Your task to perform on an android device: Is it going to rain tomorrow? Image 0: 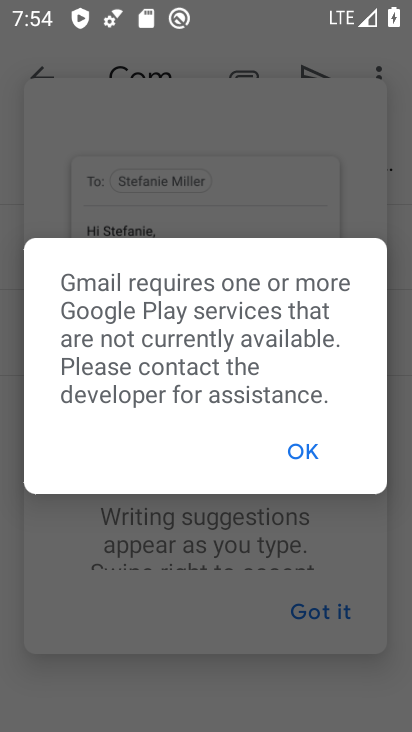
Step 0: press home button
Your task to perform on an android device: Is it going to rain tomorrow? Image 1: 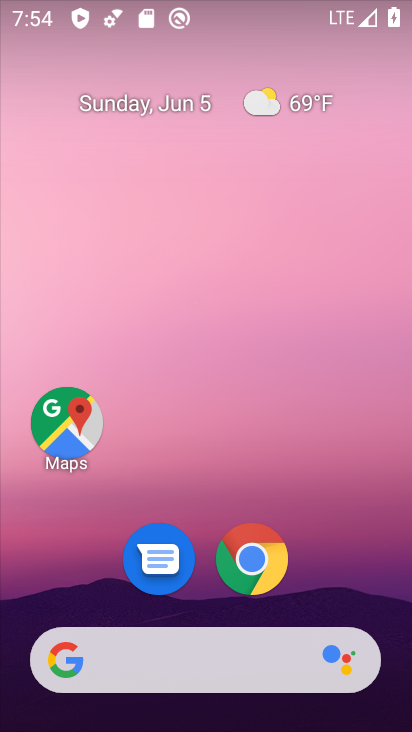
Step 1: click (320, 102)
Your task to perform on an android device: Is it going to rain tomorrow? Image 2: 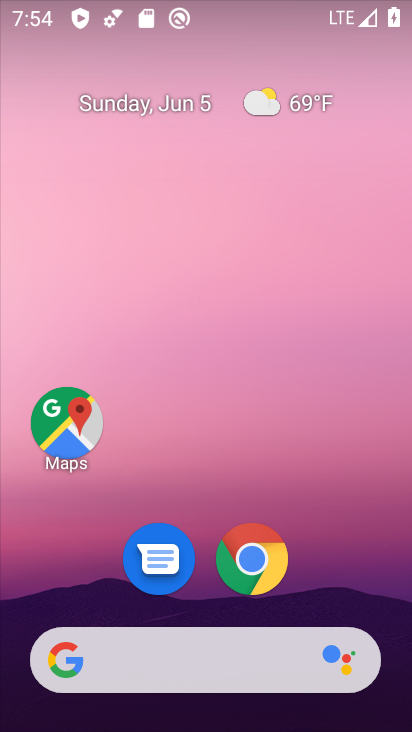
Step 2: click (317, 108)
Your task to perform on an android device: Is it going to rain tomorrow? Image 3: 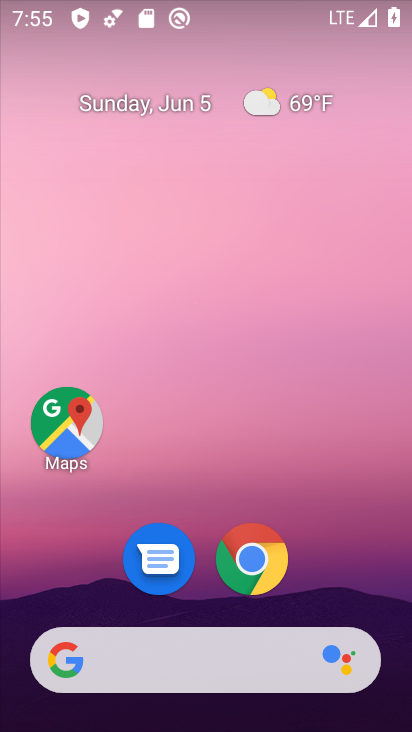
Step 3: click (317, 107)
Your task to perform on an android device: Is it going to rain tomorrow? Image 4: 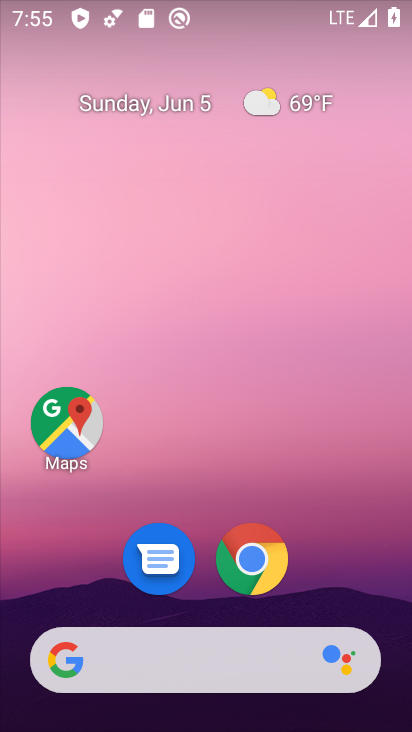
Step 4: click (315, 96)
Your task to perform on an android device: Is it going to rain tomorrow? Image 5: 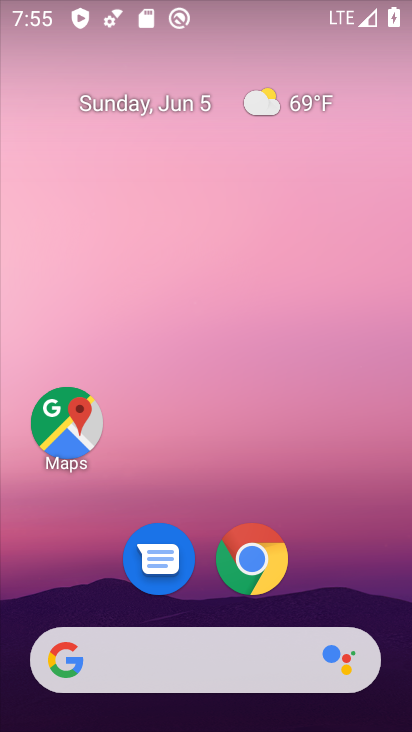
Step 5: click (307, 294)
Your task to perform on an android device: Is it going to rain tomorrow? Image 6: 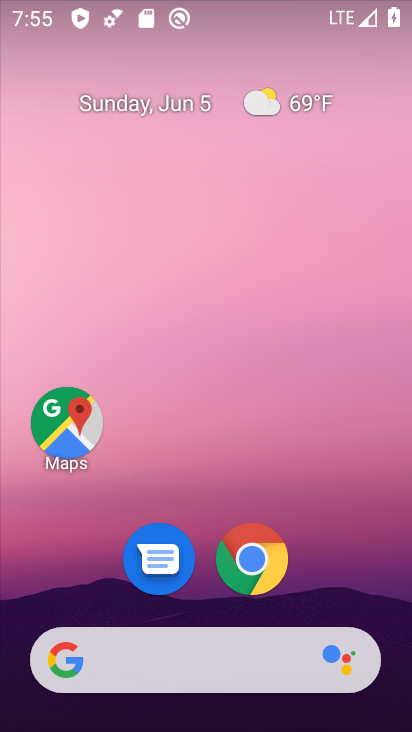
Step 6: click (320, 106)
Your task to perform on an android device: Is it going to rain tomorrow? Image 7: 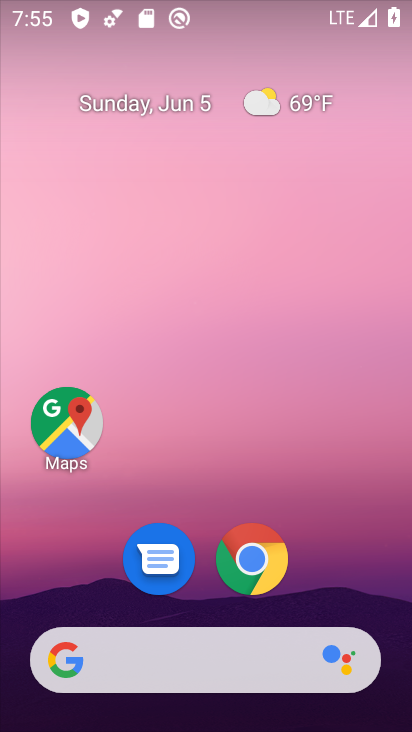
Step 7: press home button
Your task to perform on an android device: Is it going to rain tomorrow? Image 8: 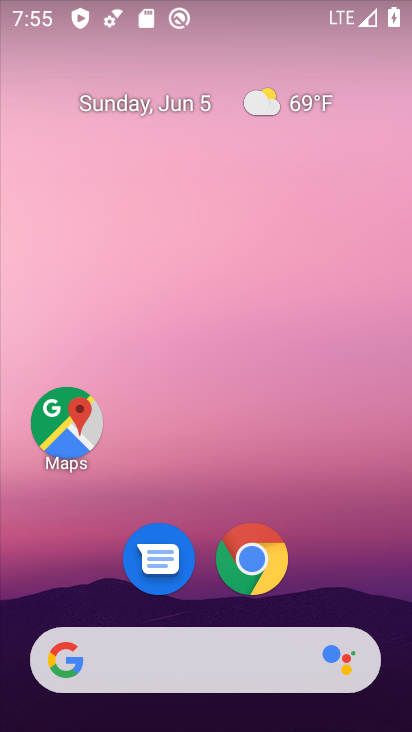
Step 8: click (353, 324)
Your task to perform on an android device: Is it going to rain tomorrow? Image 9: 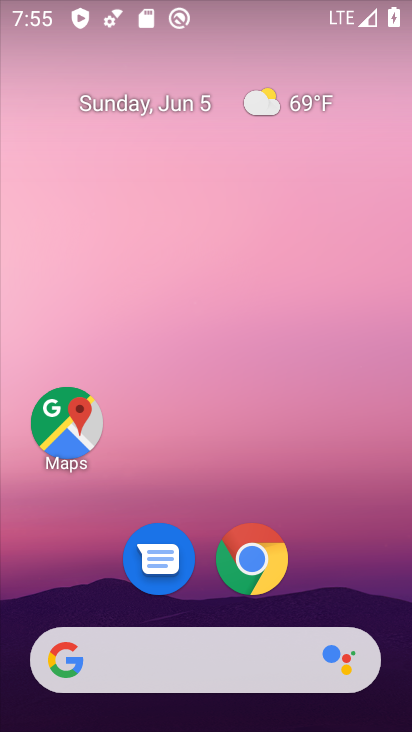
Step 9: click (307, 103)
Your task to perform on an android device: Is it going to rain tomorrow? Image 10: 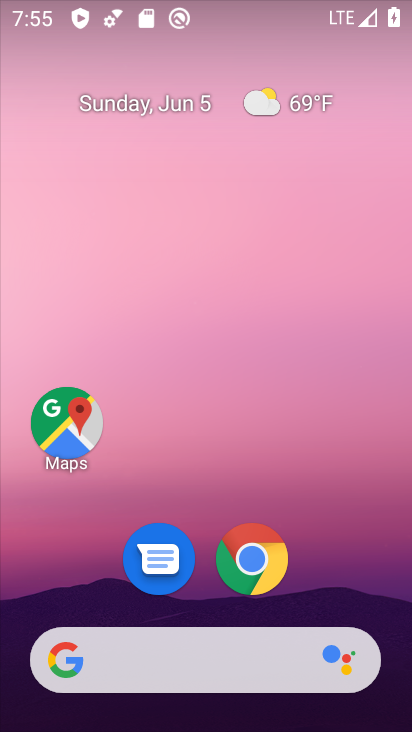
Step 10: click (307, 103)
Your task to perform on an android device: Is it going to rain tomorrow? Image 11: 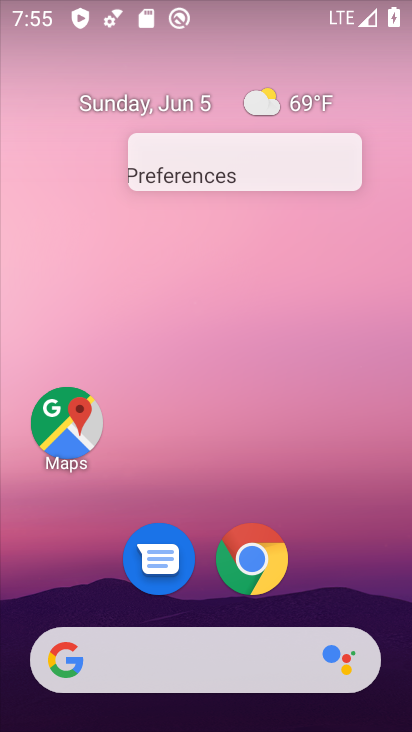
Step 11: click (307, 103)
Your task to perform on an android device: Is it going to rain tomorrow? Image 12: 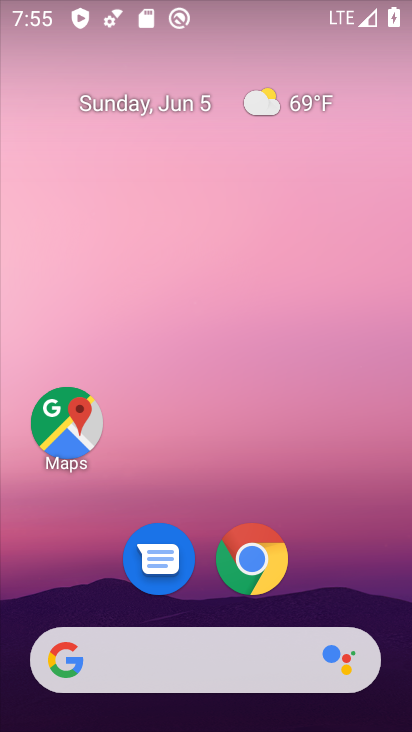
Step 12: click (298, 106)
Your task to perform on an android device: Is it going to rain tomorrow? Image 13: 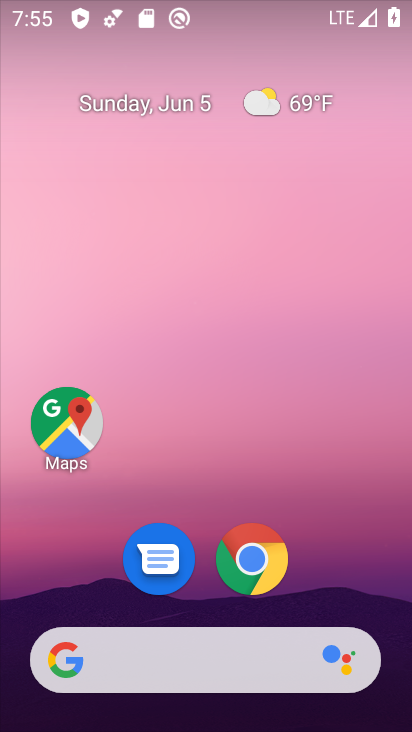
Step 13: click (257, 105)
Your task to perform on an android device: Is it going to rain tomorrow? Image 14: 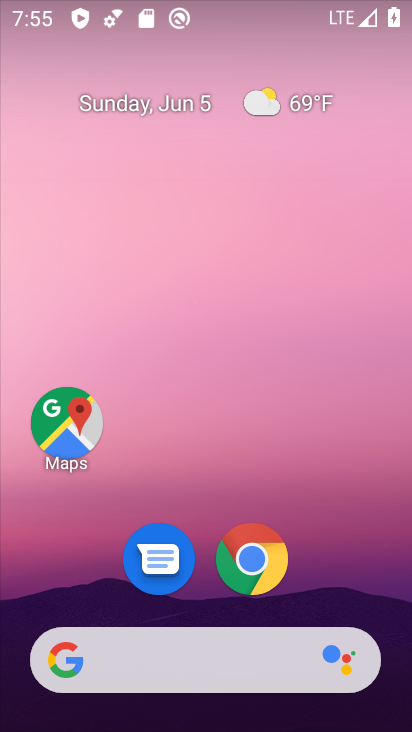
Step 14: click (291, 109)
Your task to perform on an android device: Is it going to rain tomorrow? Image 15: 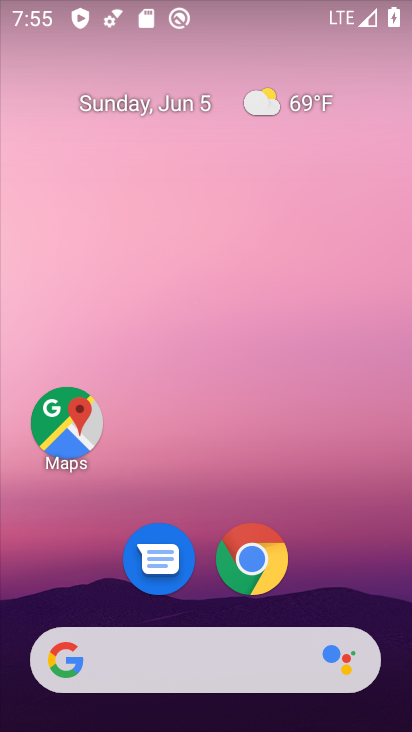
Step 15: click (307, 110)
Your task to perform on an android device: Is it going to rain tomorrow? Image 16: 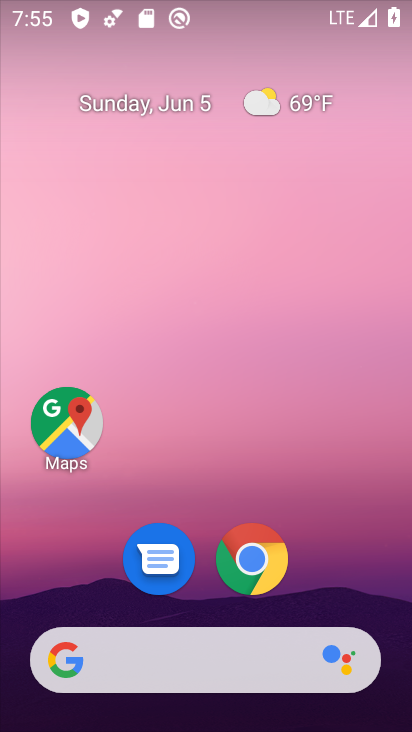
Step 16: drag from (372, 517) to (297, 77)
Your task to perform on an android device: Is it going to rain tomorrow? Image 17: 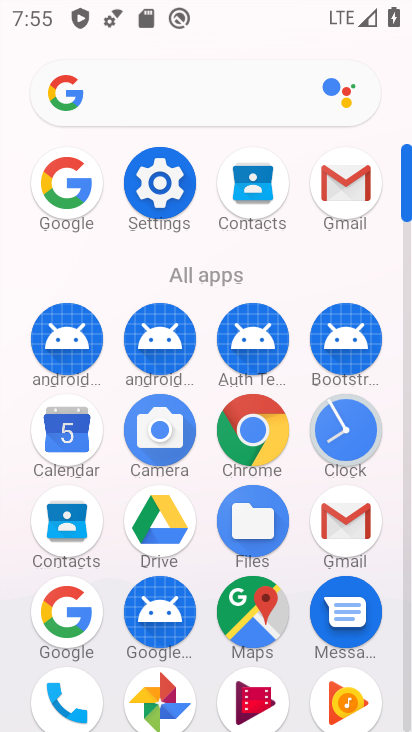
Step 17: click (68, 190)
Your task to perform on an android device: Is it going to rain tomorrow? Image 18: 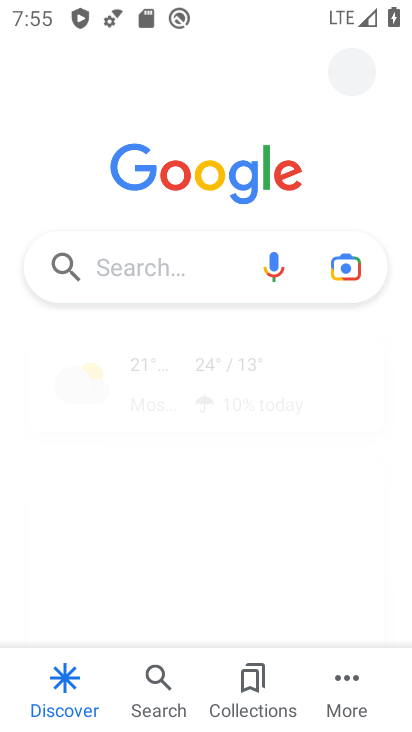
Step 18: click (173, 264)
Your task to perform on an android device: Is it going to rain tomorrow? Image 19: 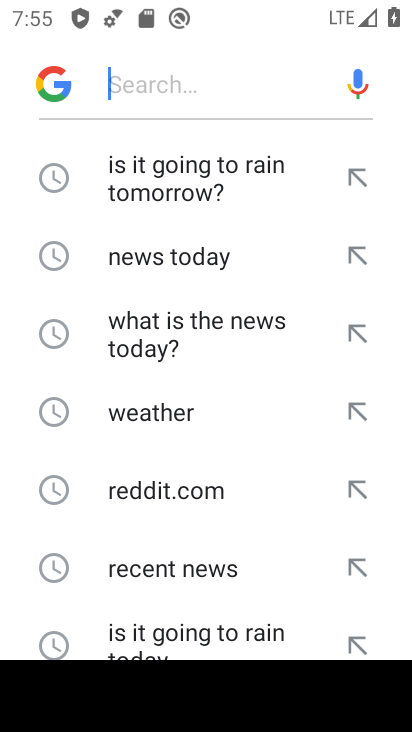
Step 19: press back button
Your task to perform on an android device: Is it going to rain tomorrow? Image 20: 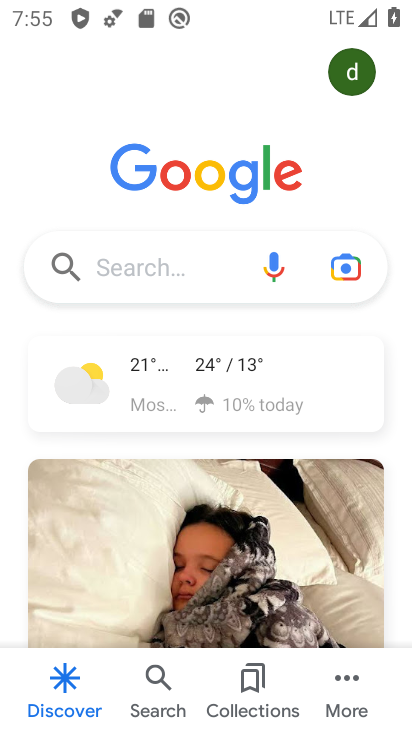
Step 20: click (302, 370)
Your task to perform on an android device: Is it going to rain tomorrow? Image 21: 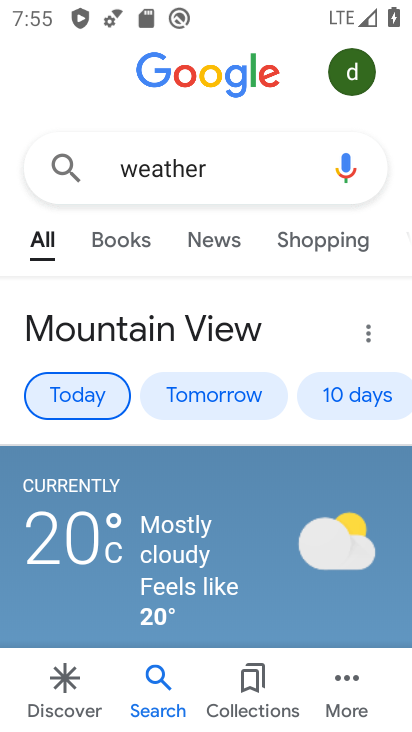
Step 21: task complete